Your task to perform on an android device: Open notification settings Image 0: 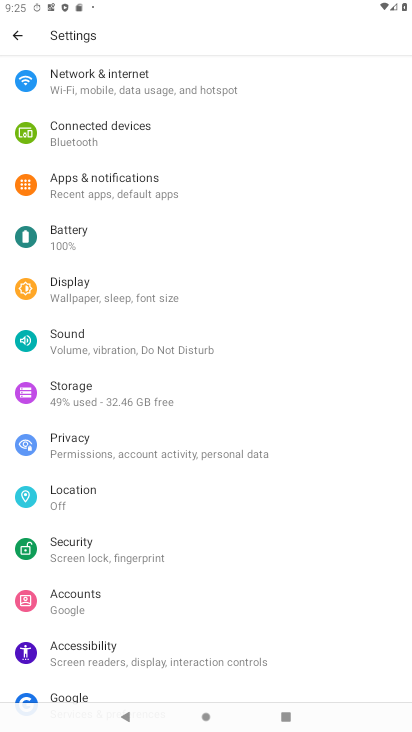
Step 0: press home button
Your task to perform on an android device: Open notification settings Image 1: 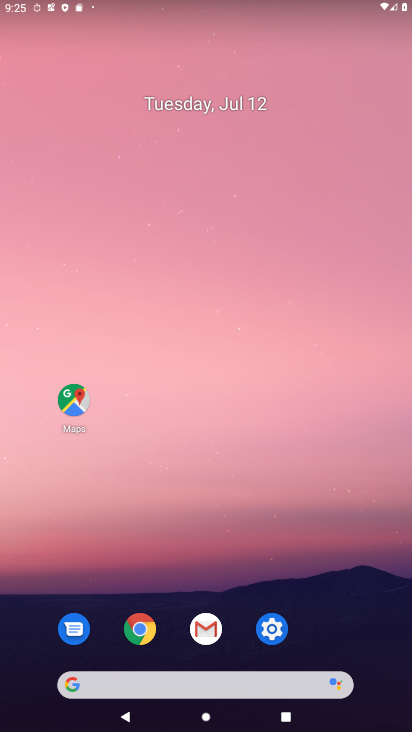
Step 1: click (272, 617)
Your task to perform on an android device: Open notification settings Image 2: 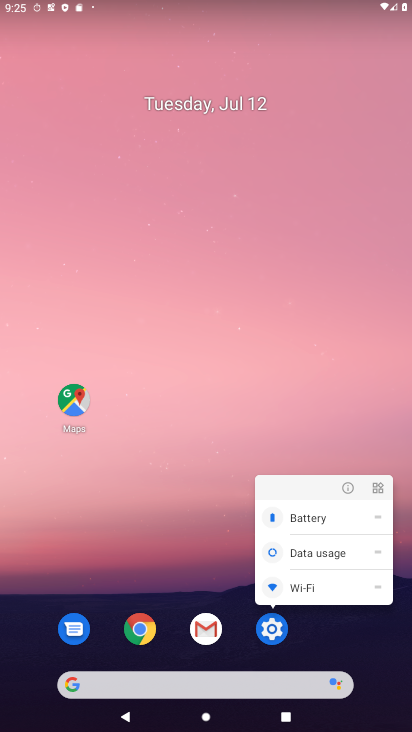
Step 2: click (270, 624)
Your task to perform on an android device: Open notification settings Image 3: 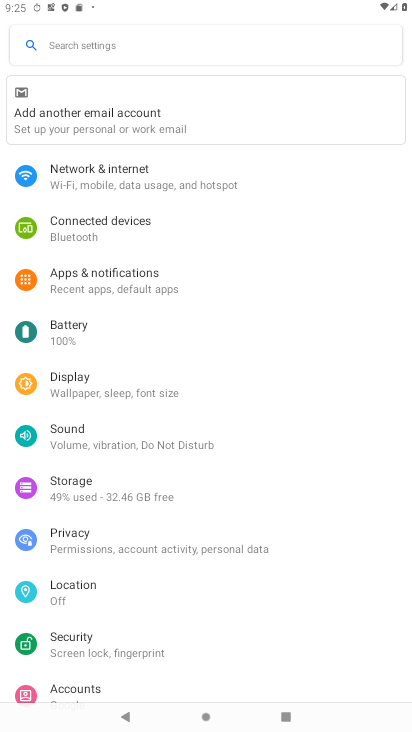
Step 3: click (114, 51)
Your task to perform on an android device: Open notification settings Image 4: 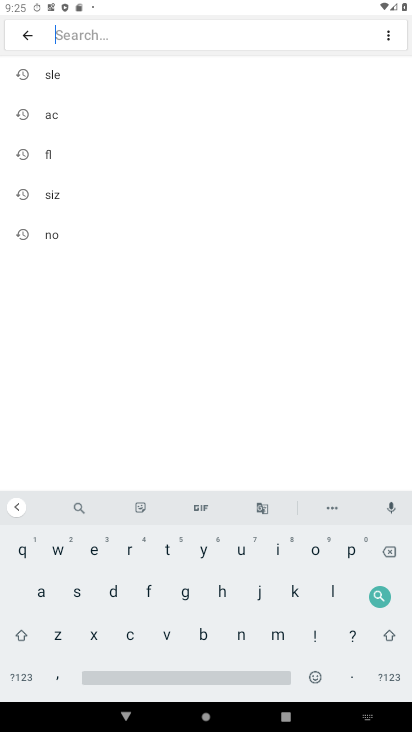
Step 4: click (83, 230)
Your task to perform on an android device: Open notification settings Image 5: 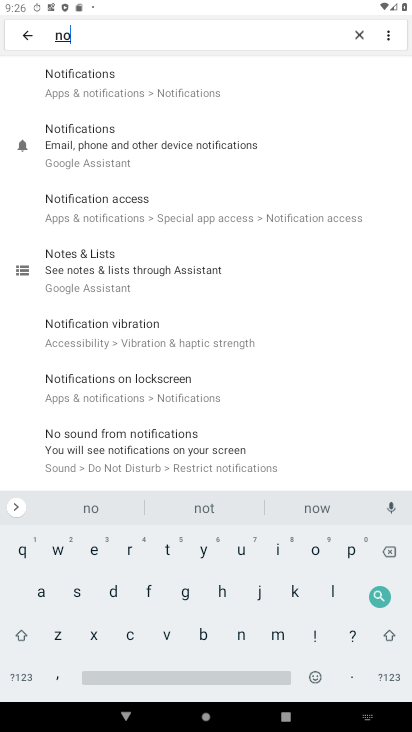
Step 5: click (94, 77)
Your task to perform on an android device: Open notification settings Image 6: 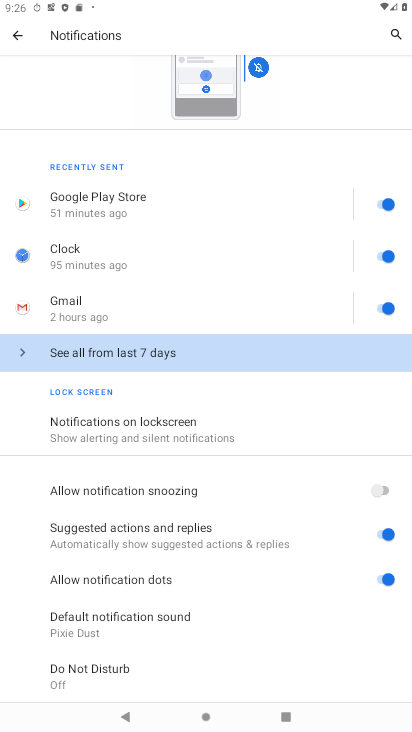
Step 6: click (120, 432)
Your task to perform on an android device: Open notification settings Image 7: 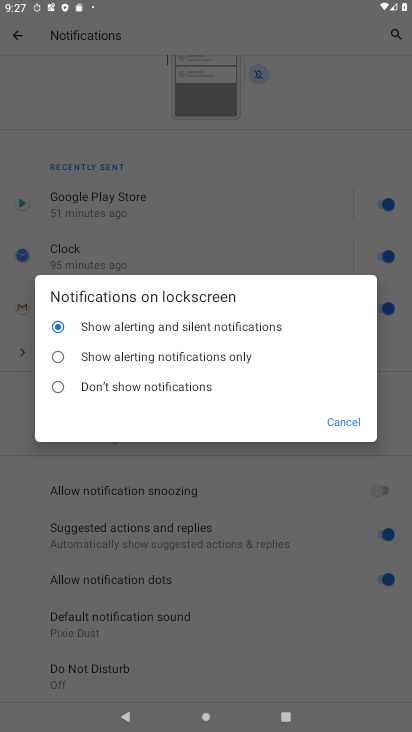
Step 7: task complete